Your task to perform on an android device: Go to Yahoo.com Image 0: 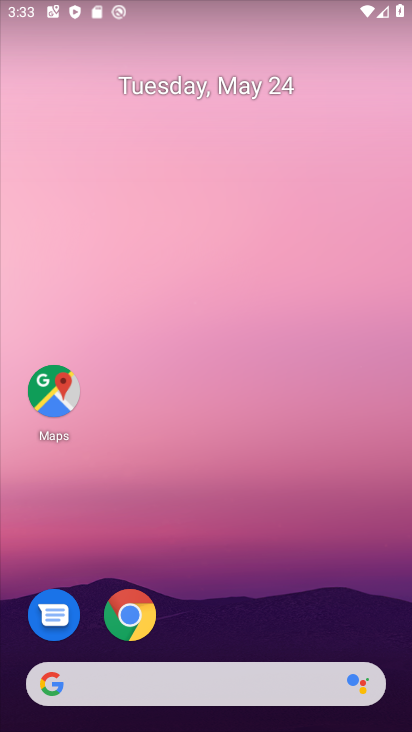
Step 0: drag from (229, 721) to (184, 88)
Your task to perform on an android device: Go to Yahoo.com Image 1: 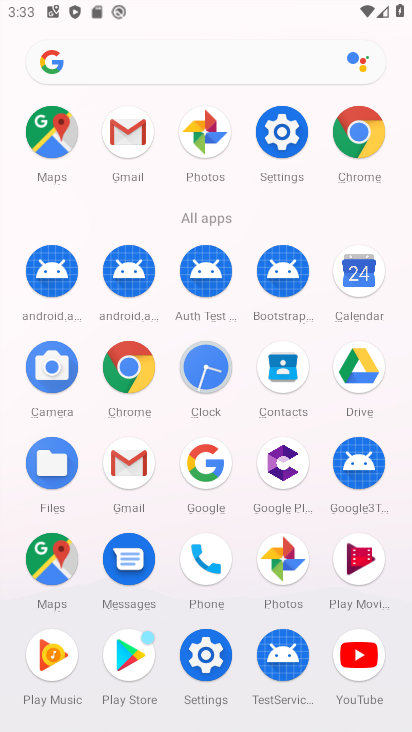
Step 1: click (134, 367)
Your task to perform on an android device: Go to Yahoo.com Image 2: 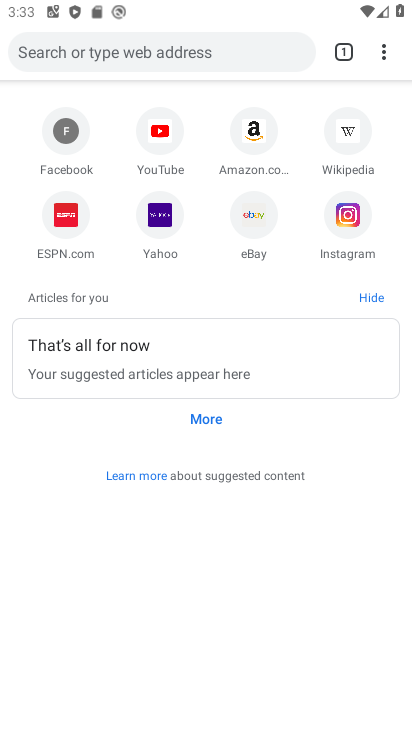
Step 2: click (156, 220)
Your task to perform on an android device: Go to Yahoo.com Image 3: 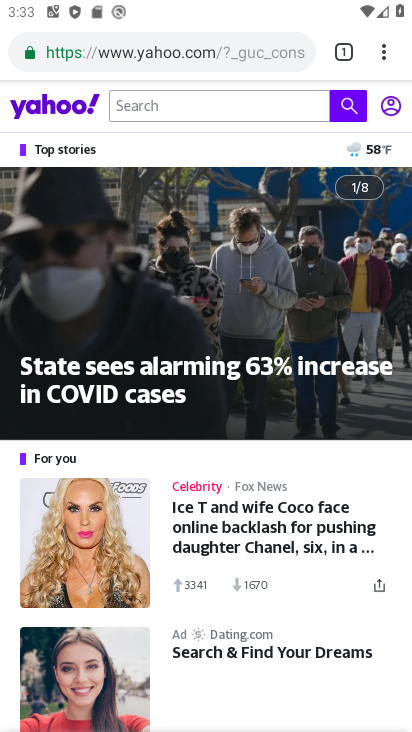
Step 3: task complete